Your task to perform on an android device: delete location history Image 0: 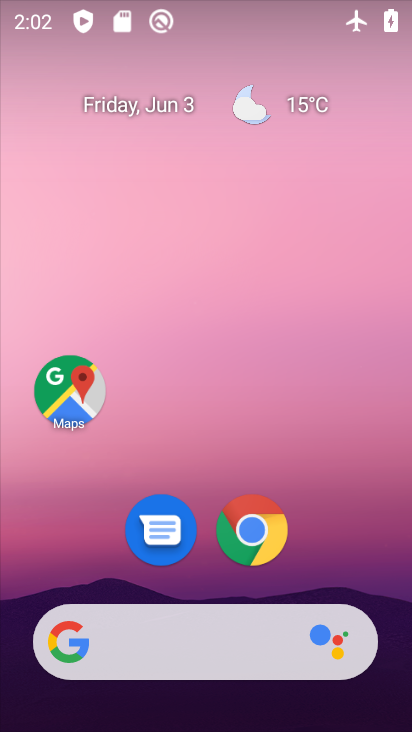
Step 0: drag from (219, 480) to (186, 350)
Your task to perform on an android device: delete location history Image 1: 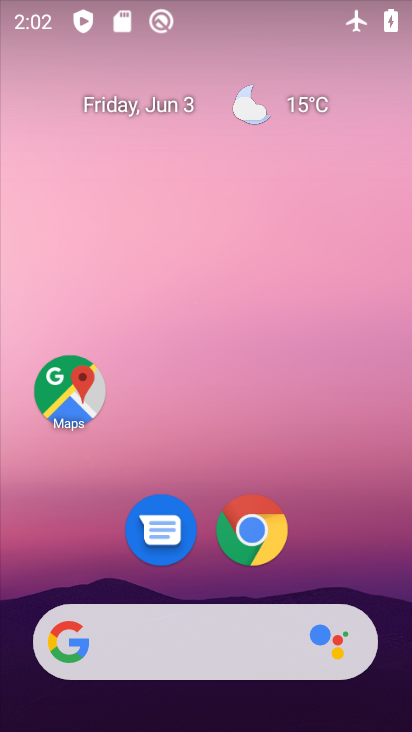
Step 1: drag from (200, 548) to (174, 166)
Your task to perform on an android device: delete location history Image 2: 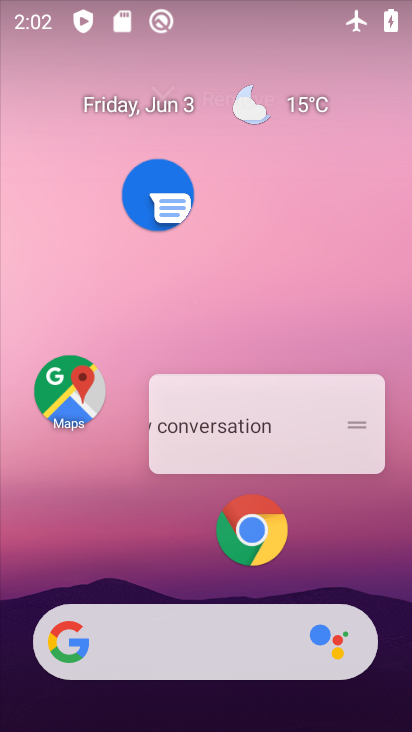
Step 2: drag from (214, 568) to (200, 200)
Your task to perform on an android device: delete location history Image 3: 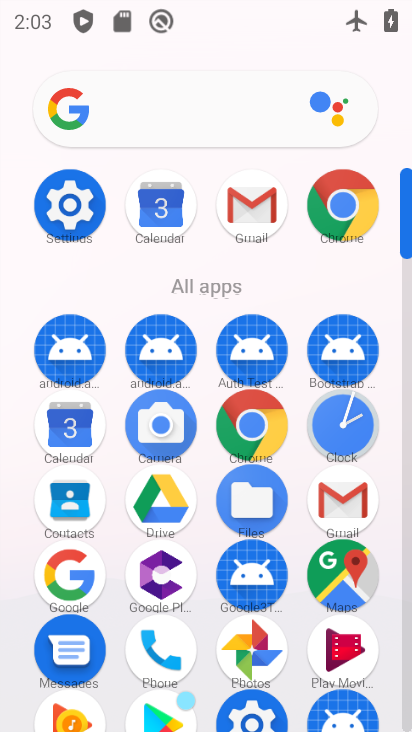
Step 3: click (60, 202)
Your task to perform on an android device: delete location history Image 4: 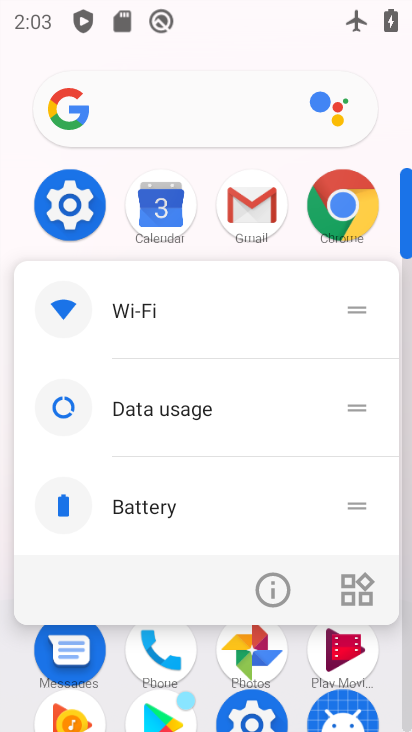
Step 4: click (67, 212)
Your task to perform on an android device: delete location history Image 5: 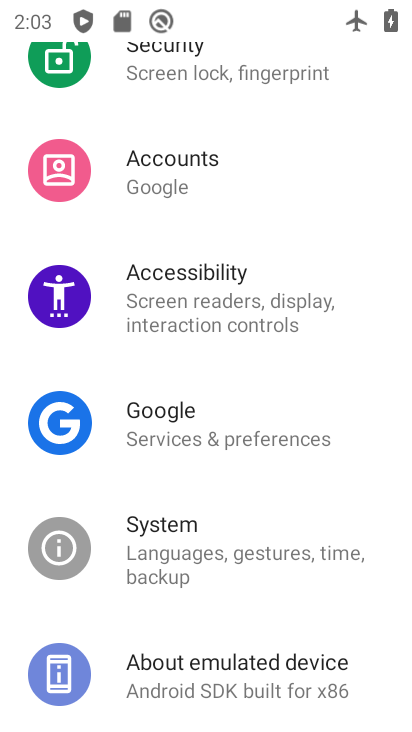
Step 5: drag from (134, 268) to (215, 482)
Your task to perform on an android device: delete location history Image 6: 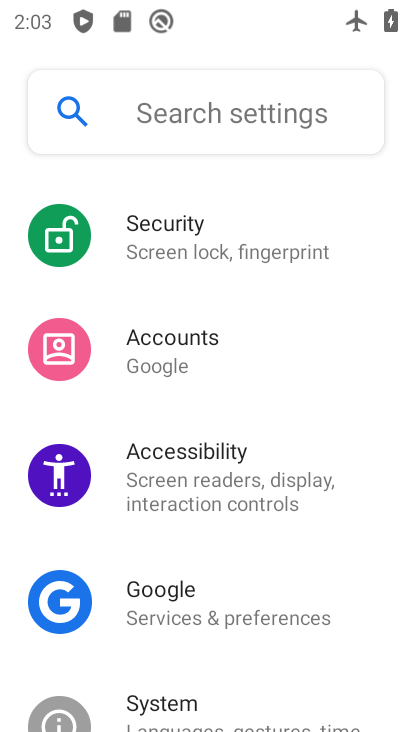
Step 6: drag from (214, 324) to (229, 558)
Your task to perform on an android device: delete location history Image 7: 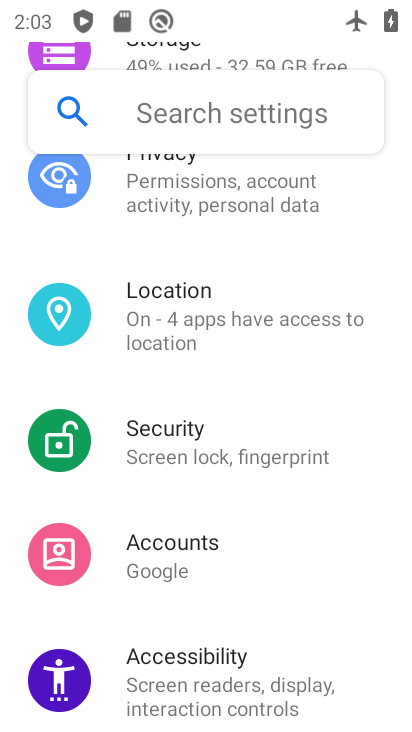
Step 7: click (163, 333)
Your task to perform on an android device: delete location history Image 8: 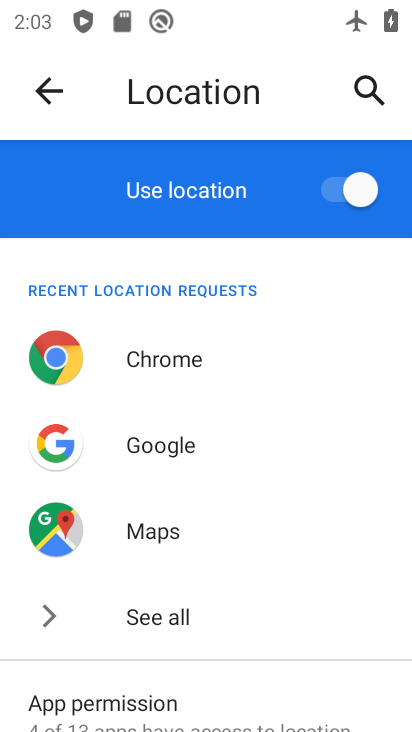
Step 8: drag from (203, 570) to (166, 395)
Your task to perform on an android device: delete location history Image 9: 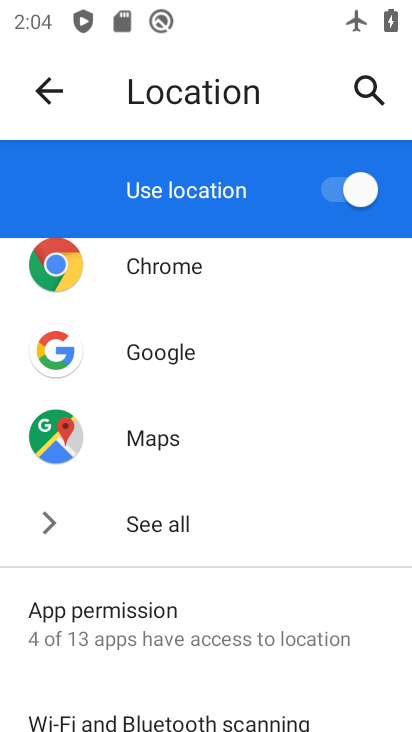
Step 9: drag from (188, 593) to (190, 328)
Your task to perform on an android device: delete location history Image 10: 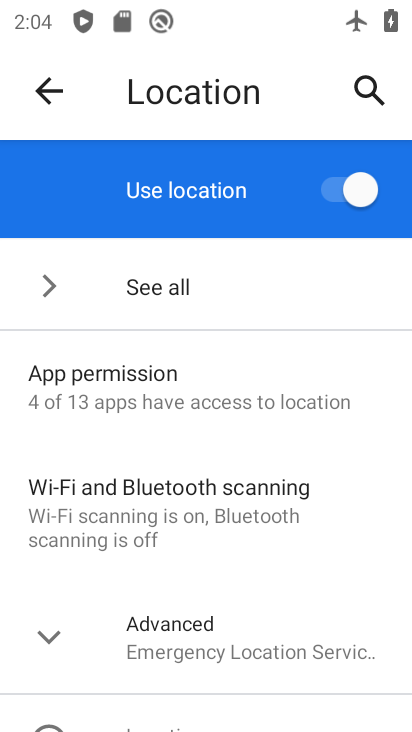
Step 10: drag from (211, 599) to (208, 433)
Your task to perform on an android device: delete location history Image 11: 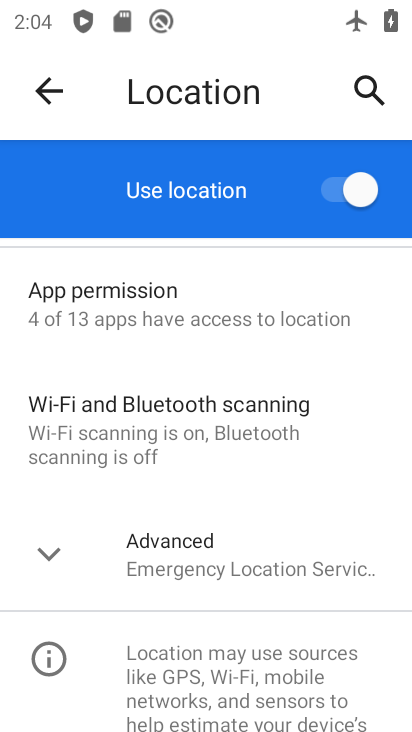
Step 11: click (229, 557)
Your task to perform on an android device: delete location history Image 12: 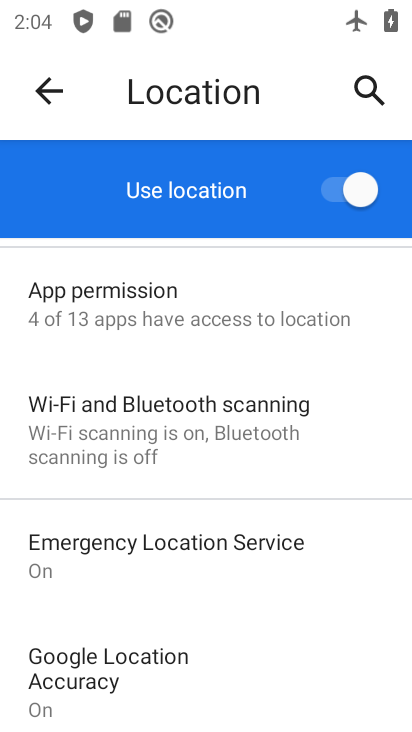
Step 12: drag from (230, 683) to (217, 283)
Your task to perform on an android device: delete location history Image 13: 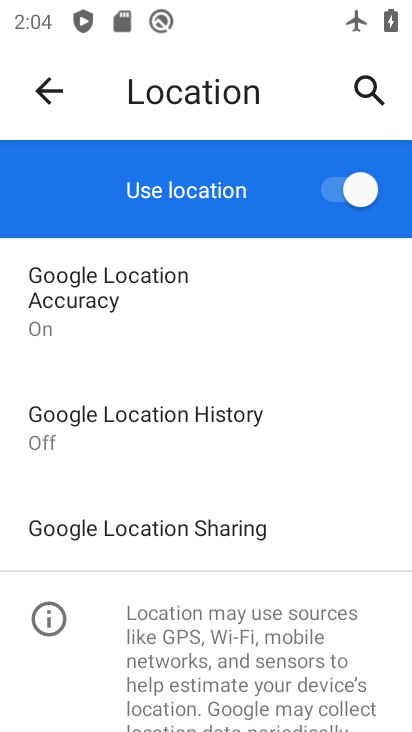
Step 13: drag from (232, 558) to (217, 338)
Your task to perform on an android device: delete location history Image 14: 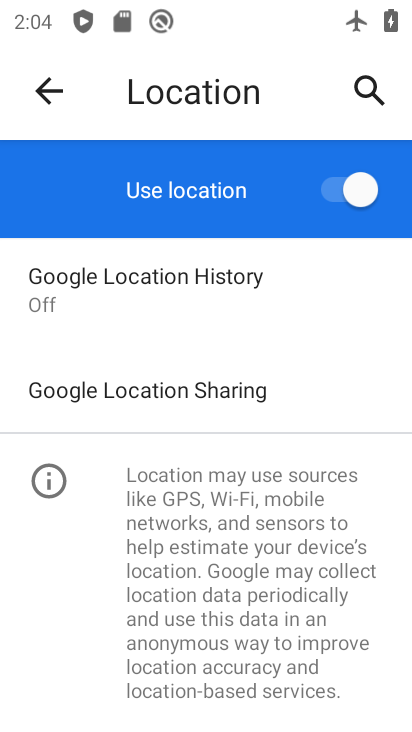
Step 14: click (165, 291)
Your task to perform on an android device: delete location history Image 15: 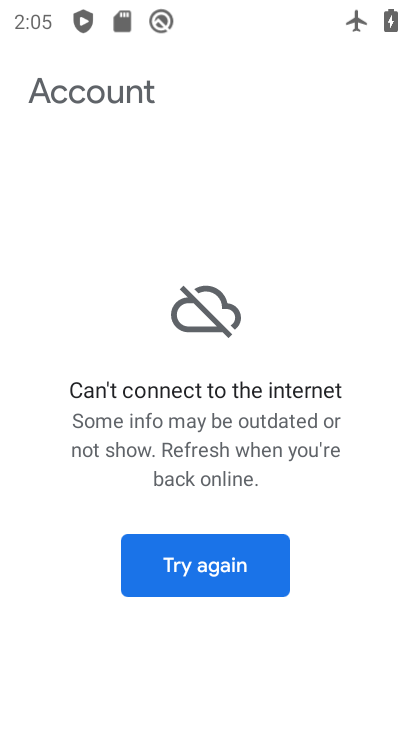
Step 15: task complete